Your task to perform on an android device: Open the web browser Image 0: 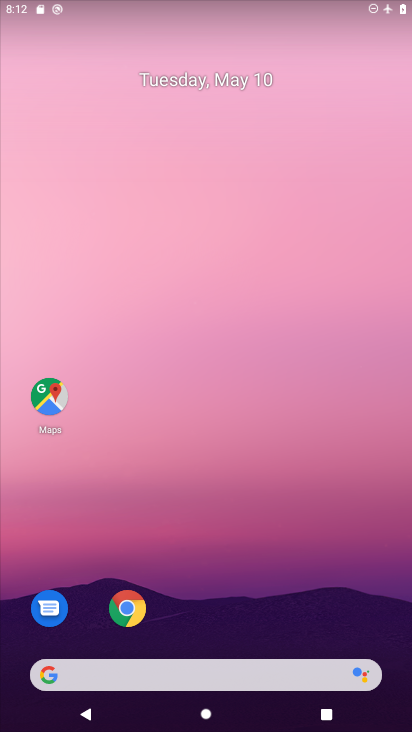
Step 0: drag from (247, 598) to (273, 266)
Your task to perform on an android device: Open the web browser Image 1: 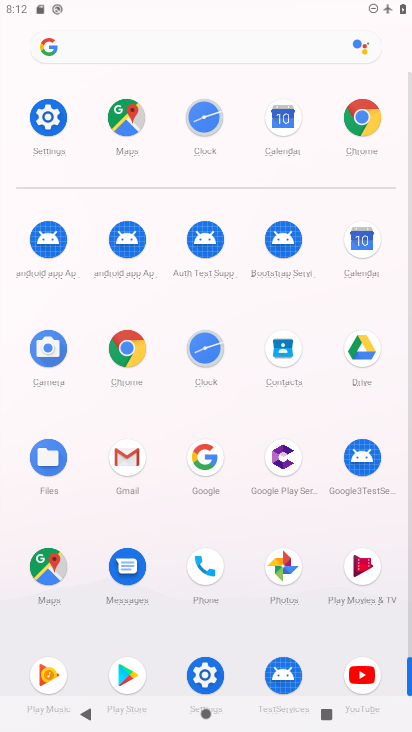
Step 1: click (128, 347)
Your task to perform on an android device: Open the web browser Image 2: 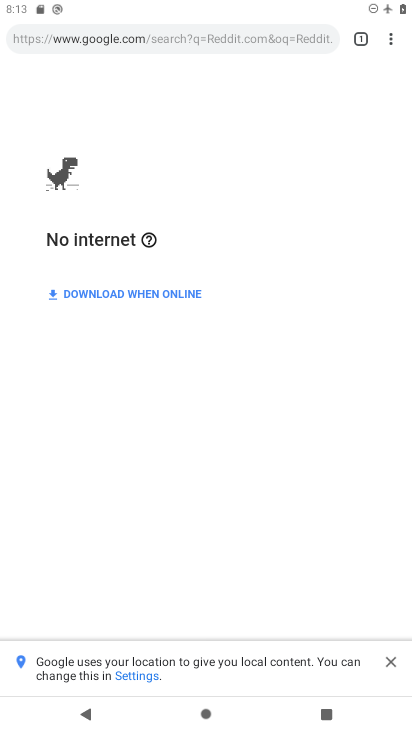
Step 2: task complete